Your task to perform on an android device: turn on showing notifications on the lock screen Image 0: 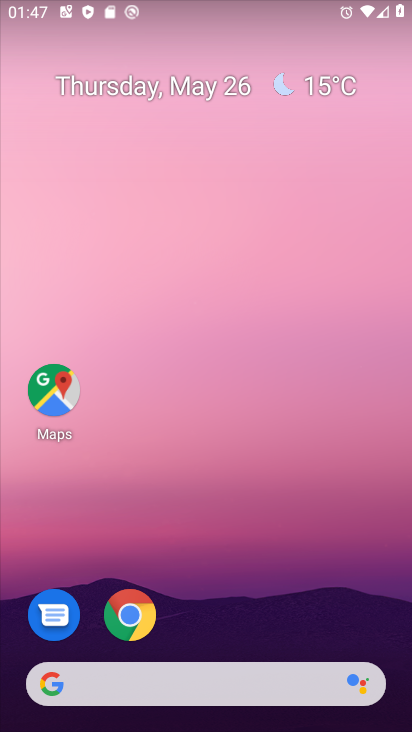
Step 0: drag from (249, 470) to (267, 90)
Your task to perform on an android device: turn on showing notifications on the lock screen Image 1: 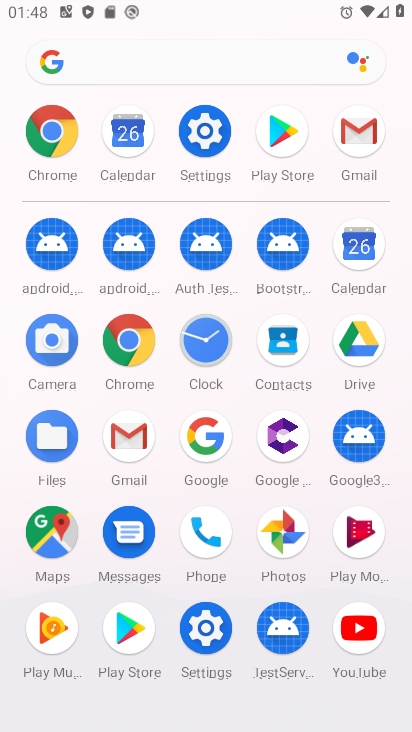
Step 1: click (189, 130)
Your task to perform on an android device: turn on showing notifications on the lock screen Image 2: 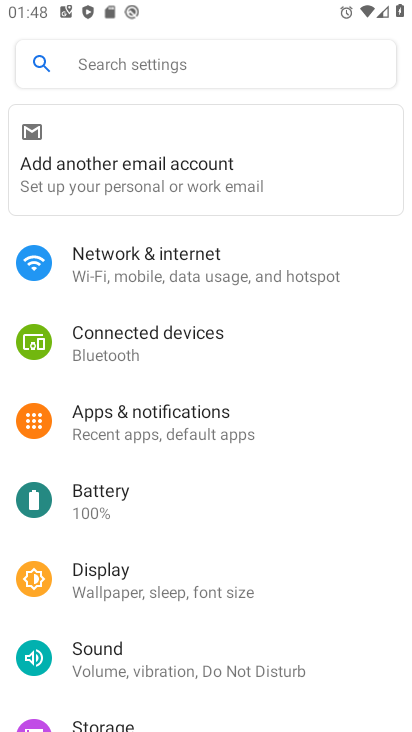
Step 2: click (160, 428)
Your task to perform on an android device: turn on showing notifications on the lock screen Image 3: 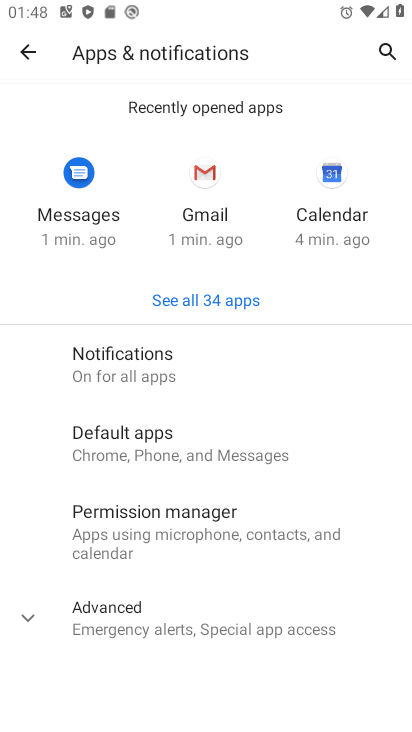
Step 3: click (162, 361)
Your task to perform on an android device: turn on showing notifications on the lock screen Image 4: 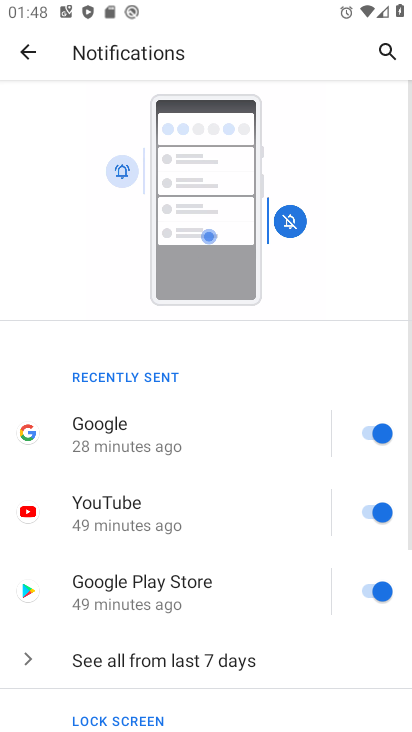
Step 4: drag from (147, 672) to (196, 282)
Your task to perform on an android device: turn on showing notifications on the lock screen Image 5: 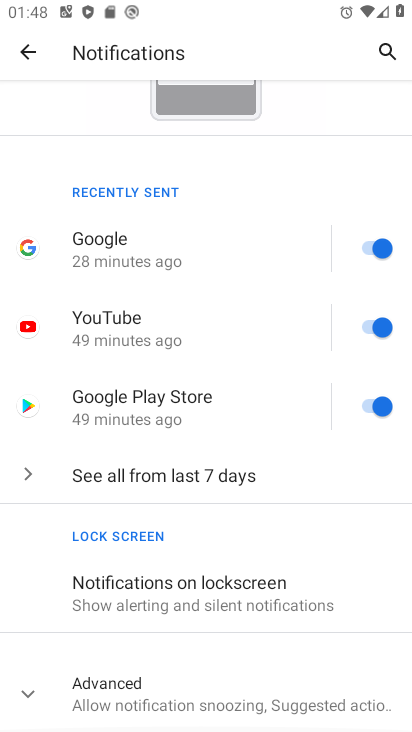
Step 5: click (200, 595)
Your task to perform on an android device: turn on showing notifications on the lock screen Image 6: 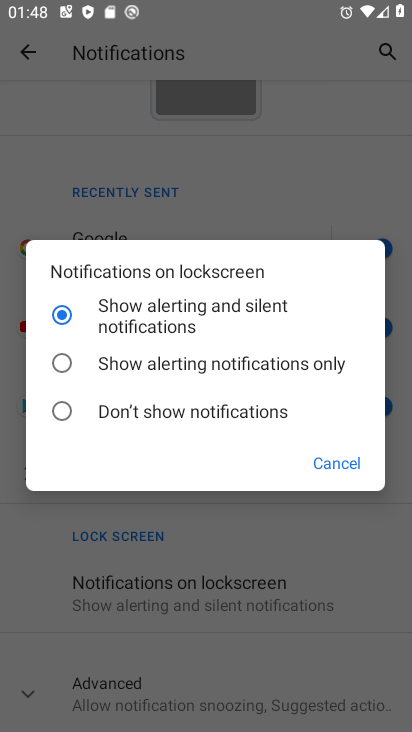
Step 6: click (53, 310)
Your task to perform on an android device: turn on showing notifications on the lock screen Image 7: 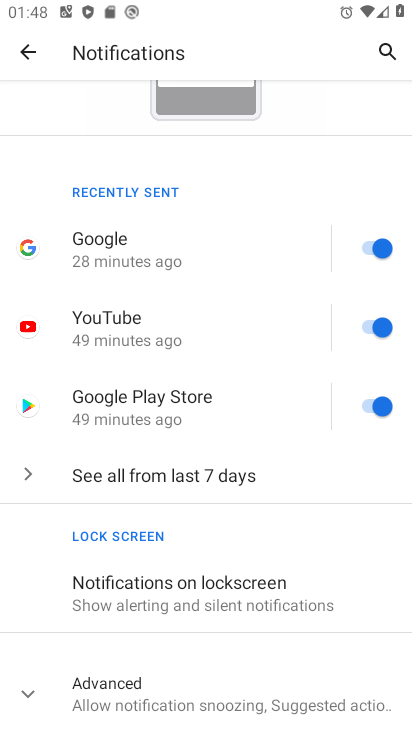
Step 7: task complete